Your task to perform on an android device: turn off javascript in the chrome app Image 0: 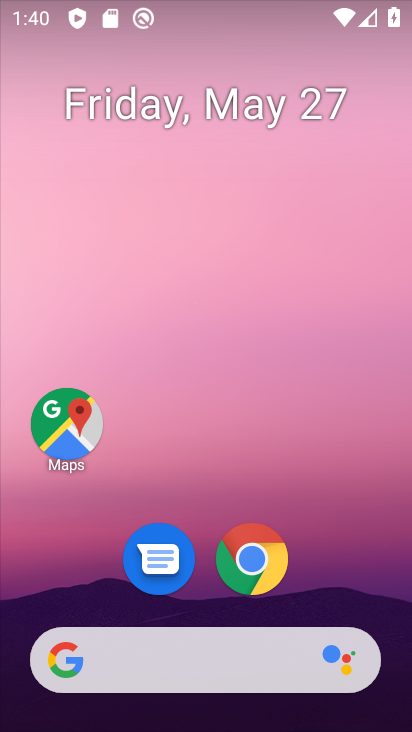
Step 0: click (265, 585)
Your task to perform on an android device: turn off javascript in the chrome app Image 1: 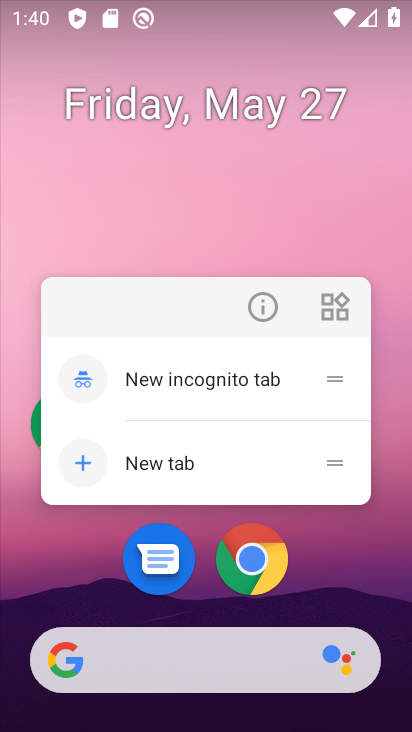
Step 1: click (265, 571)
Your task to perform on an android device: turn off javascript in the chrome app Image 2: 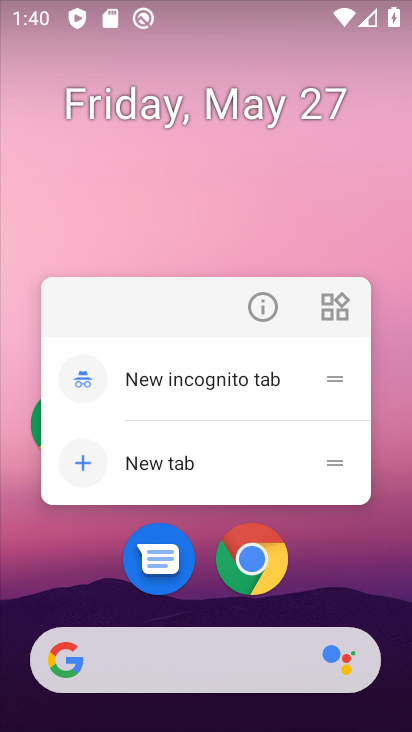
Step 2: click (265, 572)
Your task to perform on an android device: turn off javascript in the chrome app Image 3: 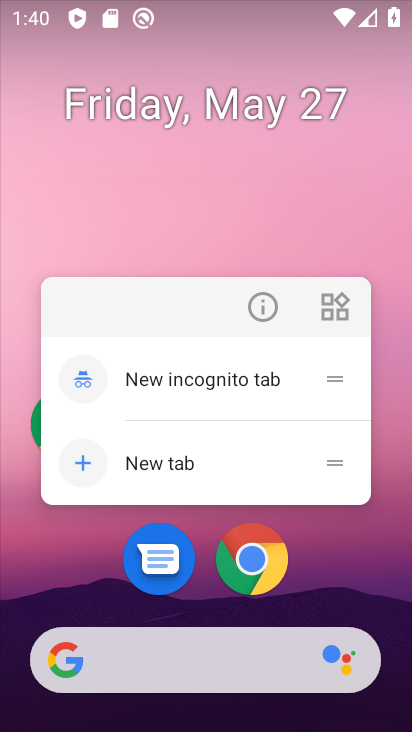
Step 3: click (265, 572)
Your task to perform on an android device: turn off javascript in the chrome app Image 4: 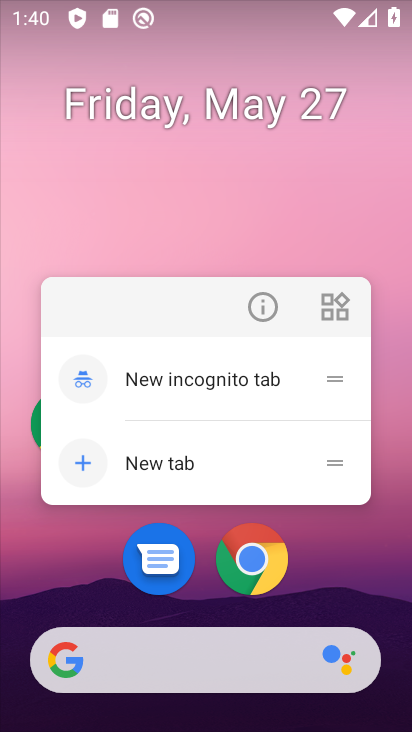
Step 4: click (260, 567)
Your task to perform on an android device: turn off javascript in the chrome app Image 5: 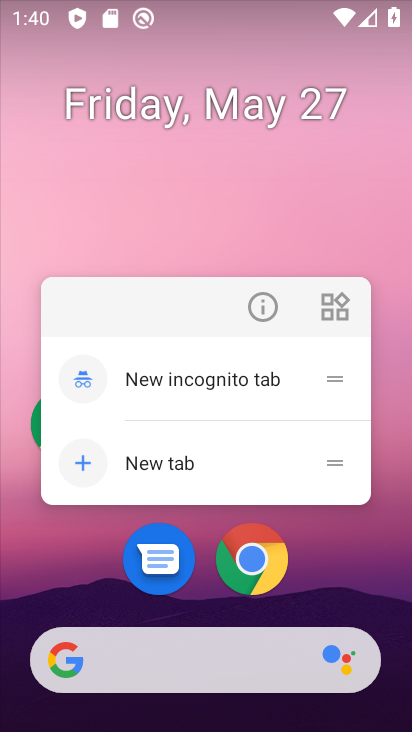
Step 5: click (259, 567)
Your task to perform on an android device: turn off javascript in the chrome app Image 6: 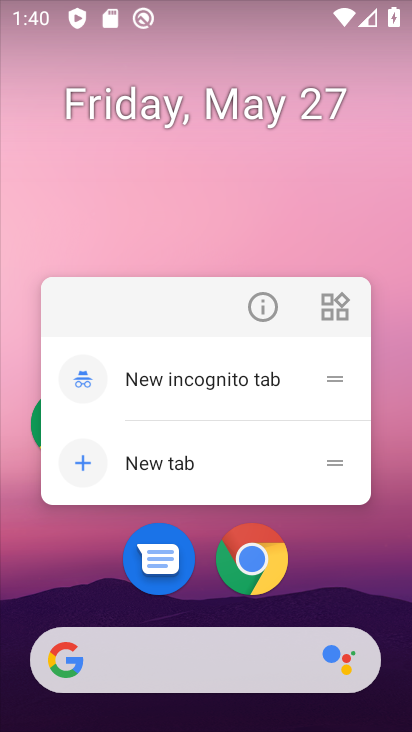
Step 6: click (260, 564)
Your task to perform on an android device: turn off javascript in the chrome app Image 7: 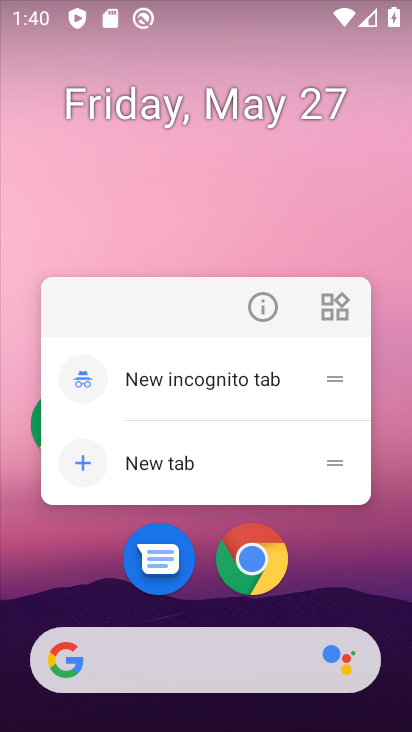
Step 7: click (276, 569)
Your task to perform on an android device: turn off javascript in the chrome app Image 8: 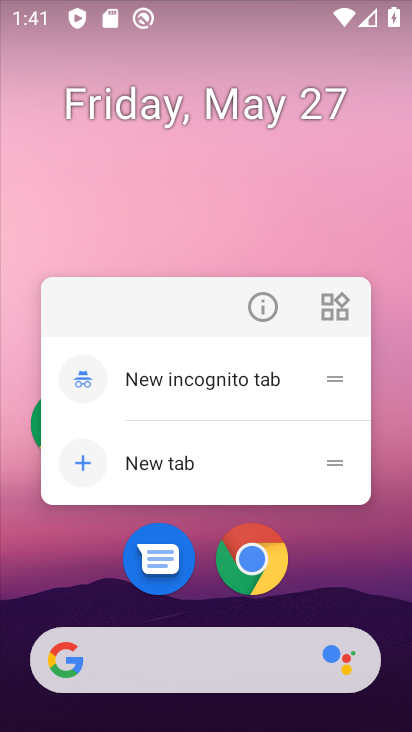
Step 8: click (279, 570)
Your task to perform on an android device: turn off javascript in the chrome app Image 9: 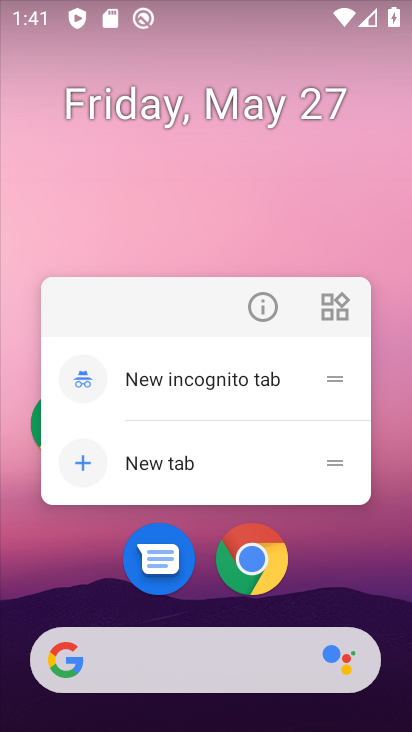
Step 9: click (279, 570)
Your task to perform on an android device: turn off javascript in the chrome app Image 10: 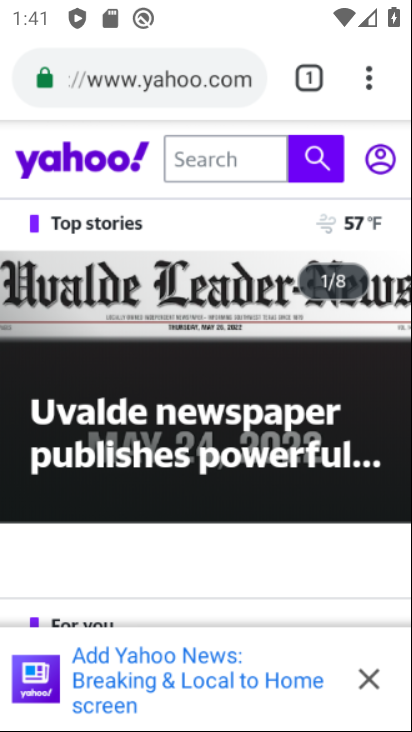
Step 10: click (262, 568)
Your task to perform on an android device: turn off javascript in the chrome app Image 11: 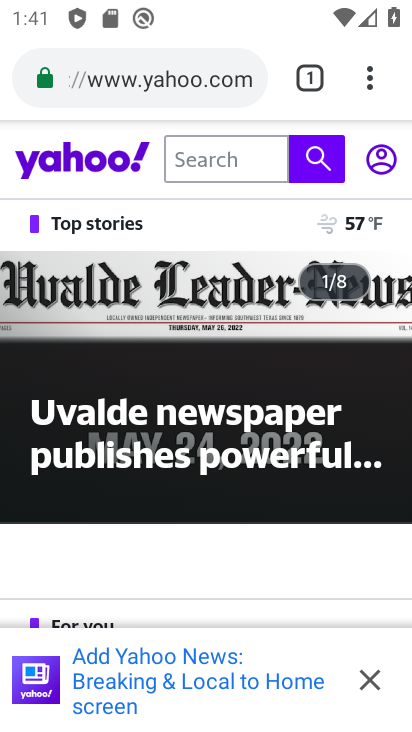
Step 11: drag from (391, 81) to (283, 623)
Your task to perform on an android device: turn off javascript in the chrome app Image 12: 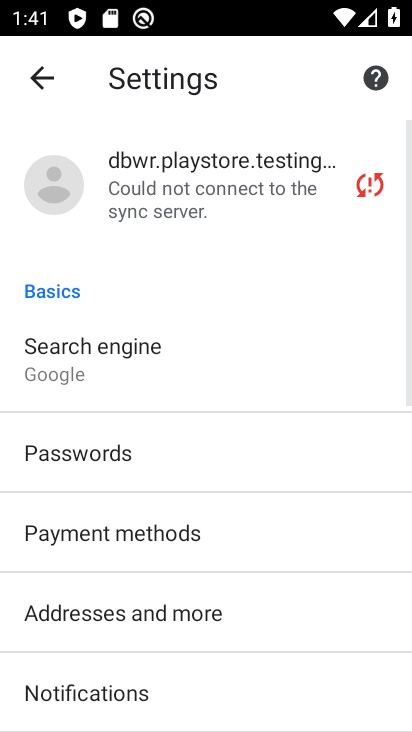
Step 12: drag from (306, 660) to (400, 384)
Your task to perform on an android device: turn off javascript in the chrome app Image 13: 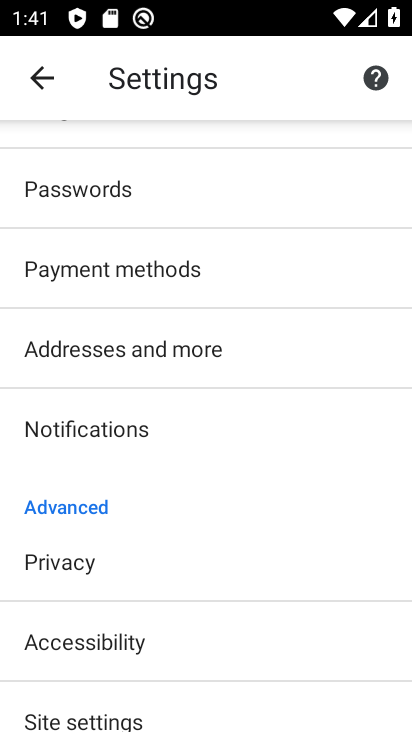
Step 13: drag from (150, 664) to (252, 429)
Your task to perform on an android device: turn off javascript in the chrome app Image 14: 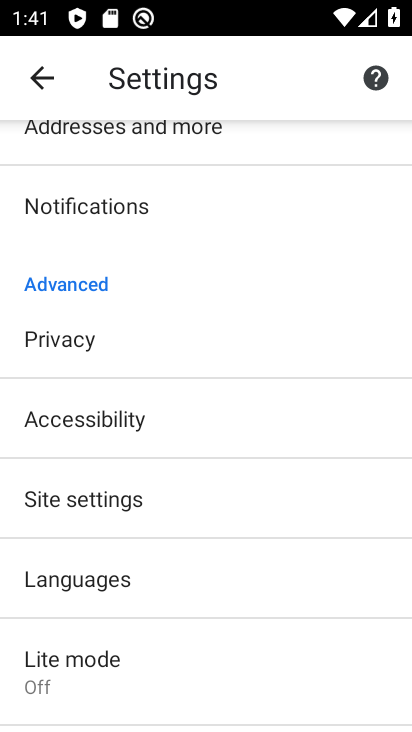
Step 14: click (148, 492)
Your task to perform on an android device: turn off javascript in the chrome app Image 15: 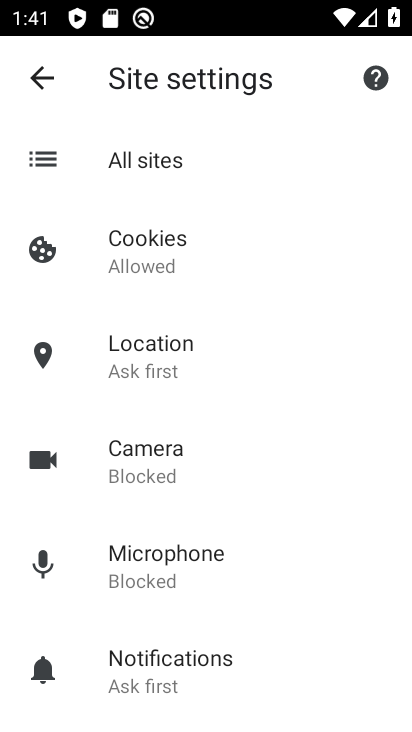
Step 15: drag from (106, 646) to (250, 278)
Your task to perform on an android device: turn off javascript in the chrome app Image 16: 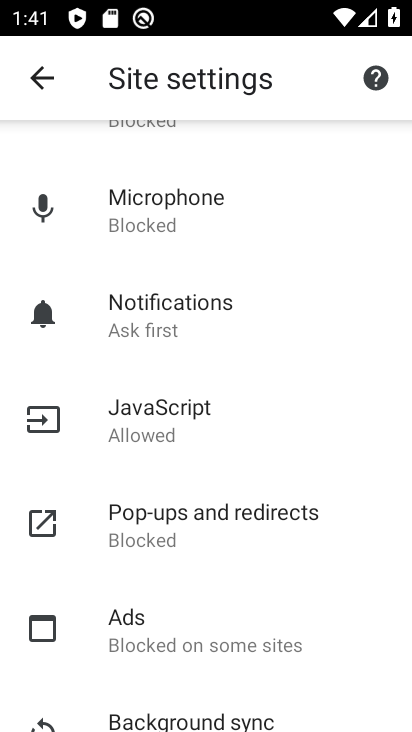
Step 16: click (252, 402)
Your task to perform on an android device: turn off javascript in the chrome app Image 17: 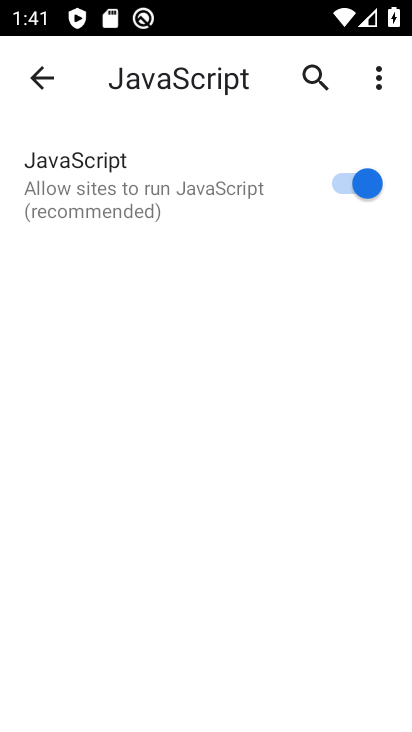
Step 17: click (343, 182)
Your task to perform on an android device: turn off javascript in the chrome app Image 18: 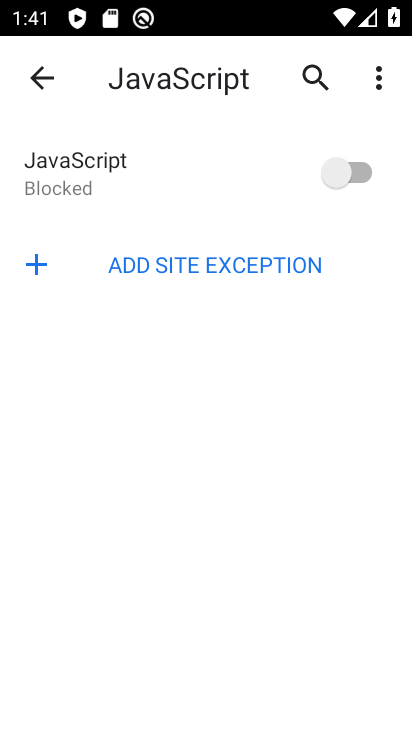
Step 18: task complete